Your task to perform on an android device: Go to network settings Image 0: 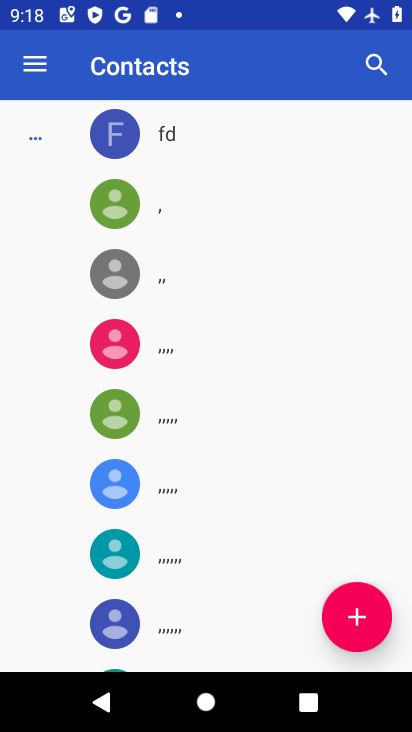
Step 0: press home button
Your task to perform on an android device: Go to network settings Image 1: 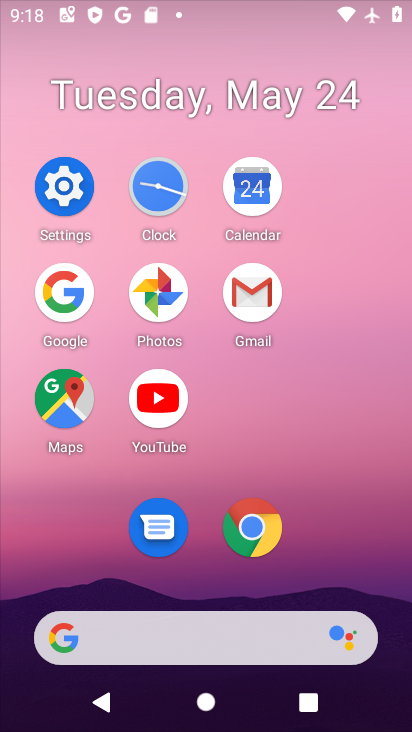
Step 1: click (68, 200)
Your task to perform on an android device: Go to network settings Image 2: 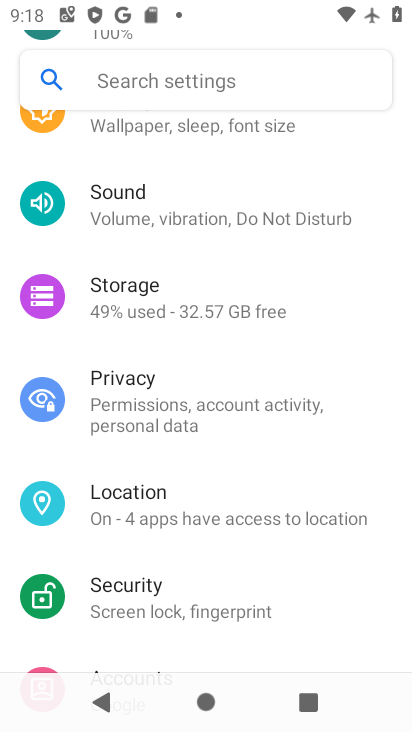
Step 2: drag from (174, 187) to (240, 530)
Your task to perform on an android device: Go to network settings Image 3: 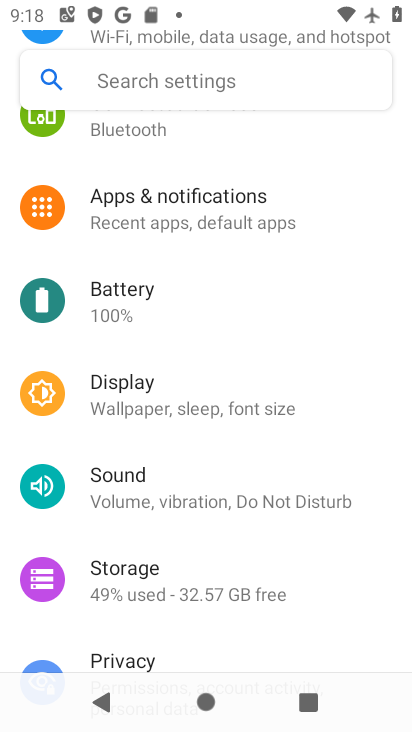
Step 3: drag from (308, 149) to (346, 552)
Your task to perform on an android device: Go to network settings Image 4: 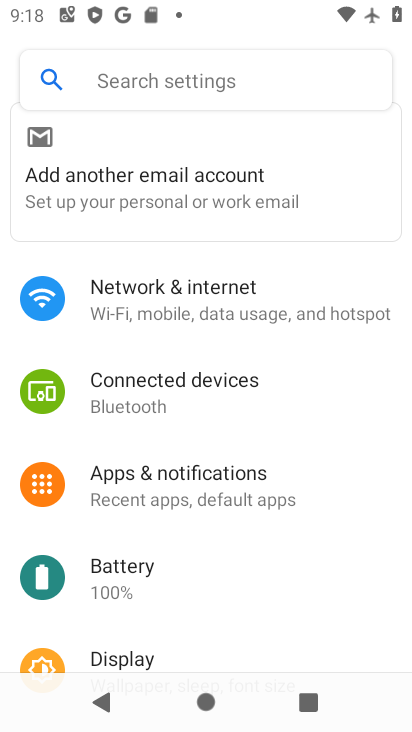
Step 4: click (229, 260)
Your task to perform on an android device: Go to network settings Image 5: 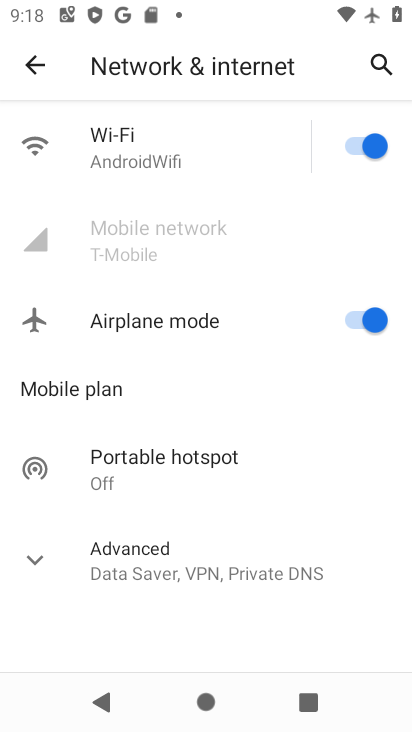
Step 5: task complete